Your task to perform on an android device: Go to wifi settings Image 0: 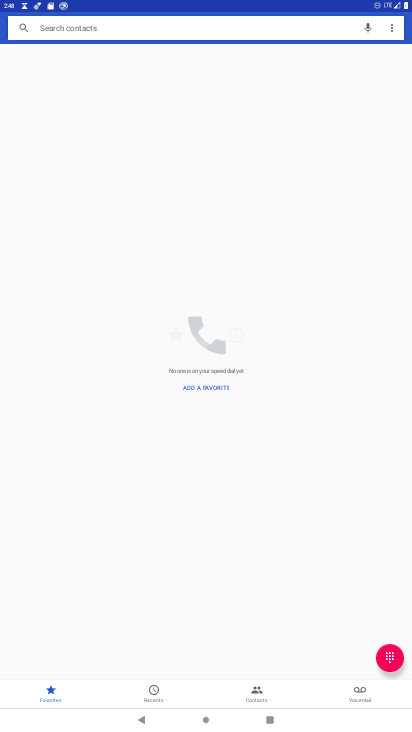
Step 0: press home button
Your task to perform on an android device: Go to wifi settings Image 1: 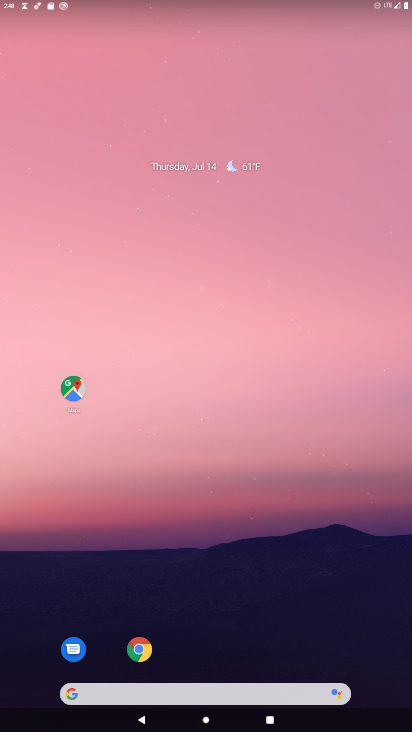
Step 1: drag from (293, 711) to (293, 124)
Your task to perform on an android device: Go to wifi settings Image 2: 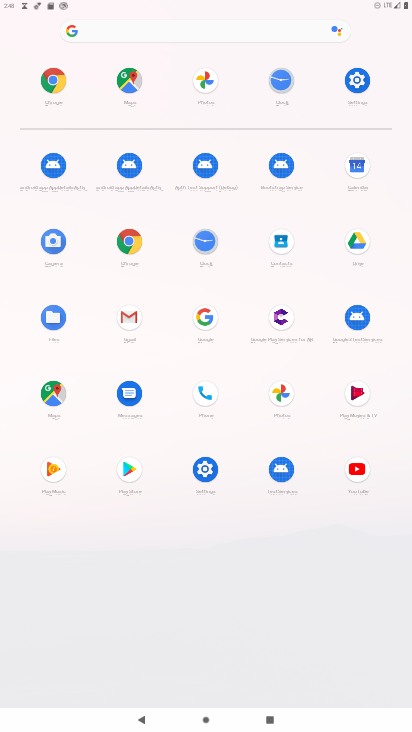
Step 2: click (354, 75)
Your task to perform on an android device: Go to wifi settings Image 3: 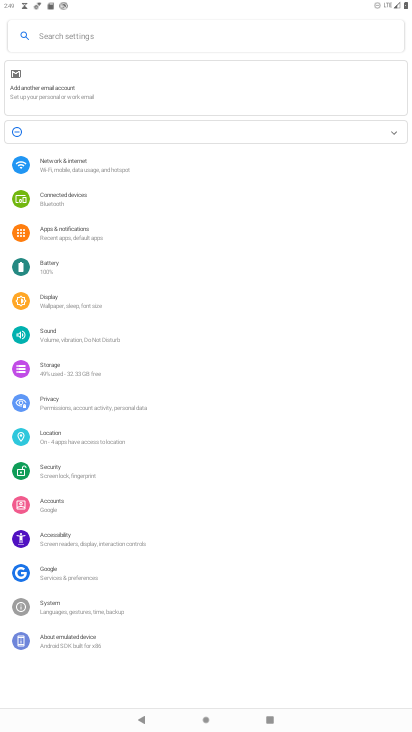
Step 3: click (99, 170)
Your task to perform on an android device: Go to wifi settings Image 4: 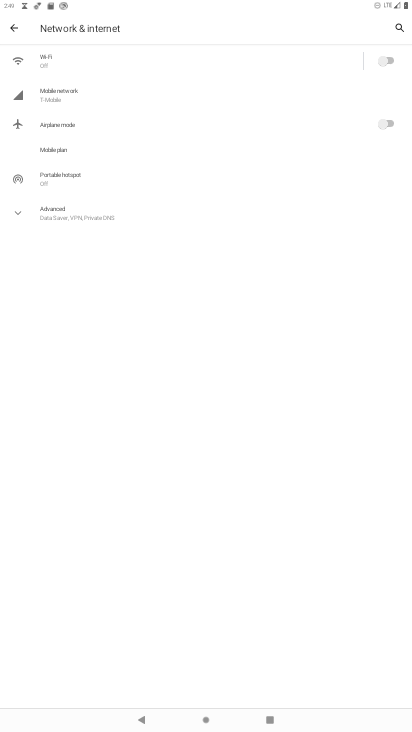
Step 4: task complete